Your task to perform on an android device: turn notification dots on Image 0: 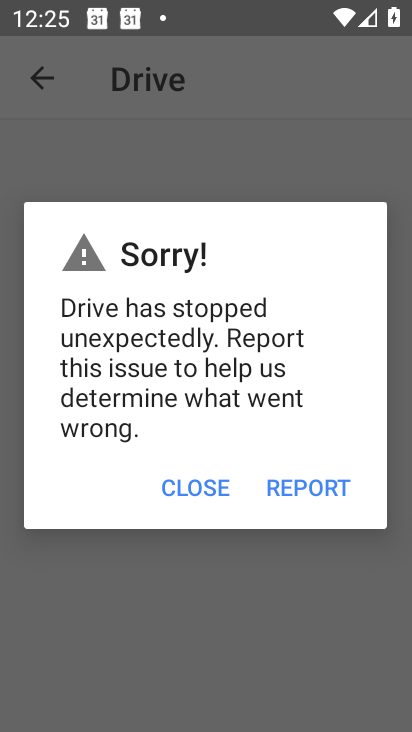
Step 0: press home button
Your task to perform on an android device: turn notification dots on Image 1: 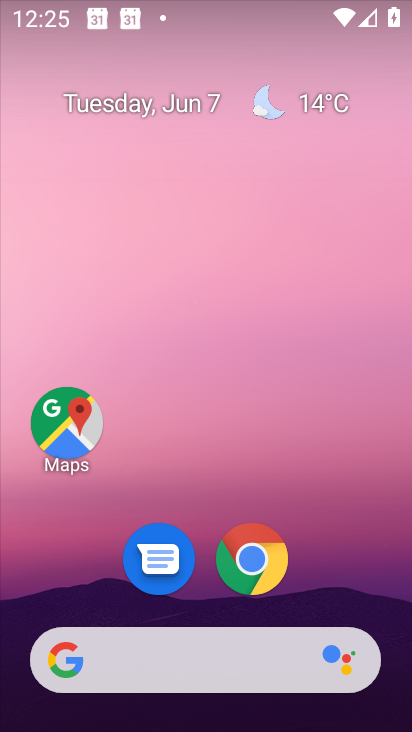
Step 1: drag from (307, 631) to (387, 179)
Your task to perform on an android device: turn notification dots on Image 2: 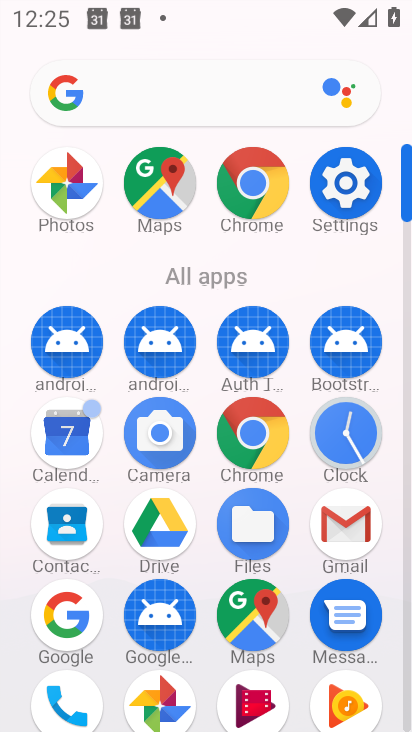
Step 2: drag from (128, 664) to (210, 288)
Your task to perform on an android device: turn notification dots on Image 3: 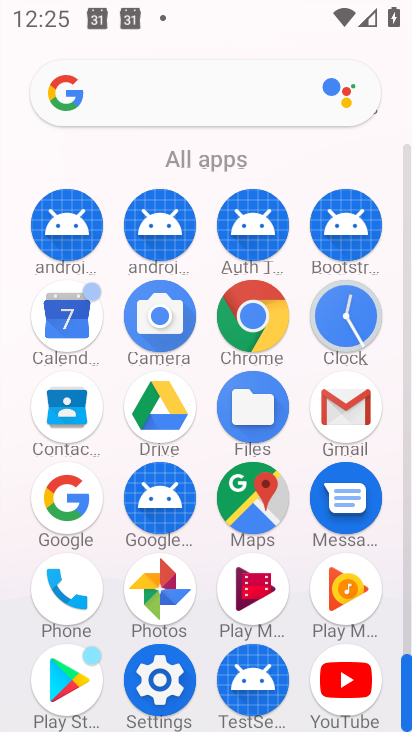
Step 3: click (148, 690)
Your task to perform on an android device: turn notification dots on Image 4: 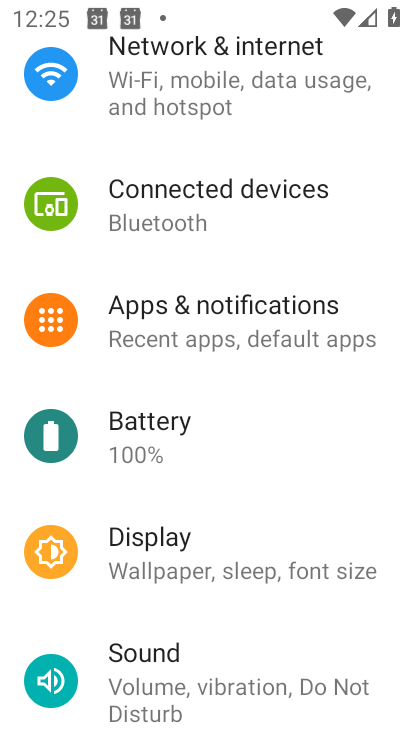
Step 4: click (285, 335)
Your task to perform on an android device: turn notification dots on Image 5: 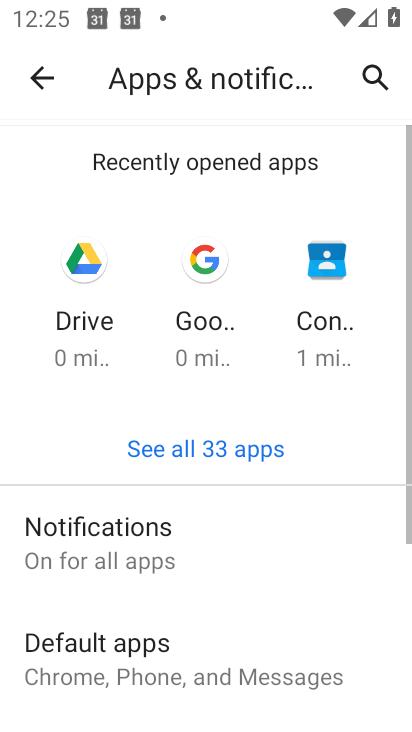
Step 5: drag from (167, 676) to (261, 386)
Your task to perform on an android device: turn notification dots on Image 6: 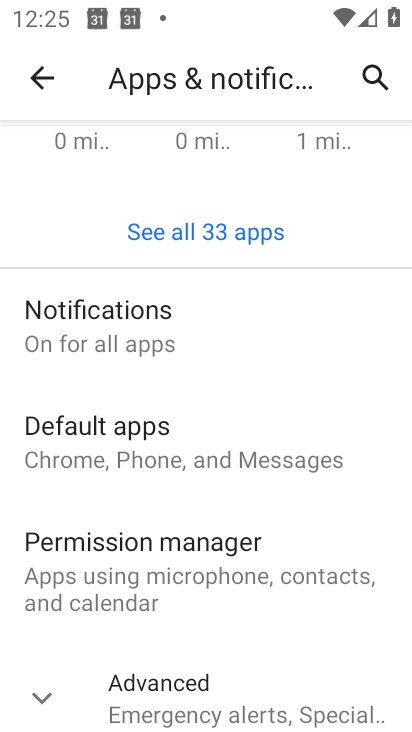
Step 6: click (170, 349)
Your task to perform on an android device: turn notification dots on Image 7: 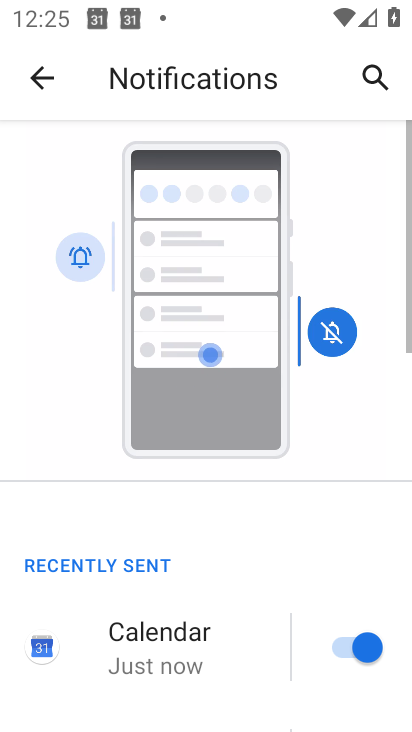
Step 7: drag from (220, 646) to (336, 184)
Your task to perform on an android device: turn notification dots on Image 8: 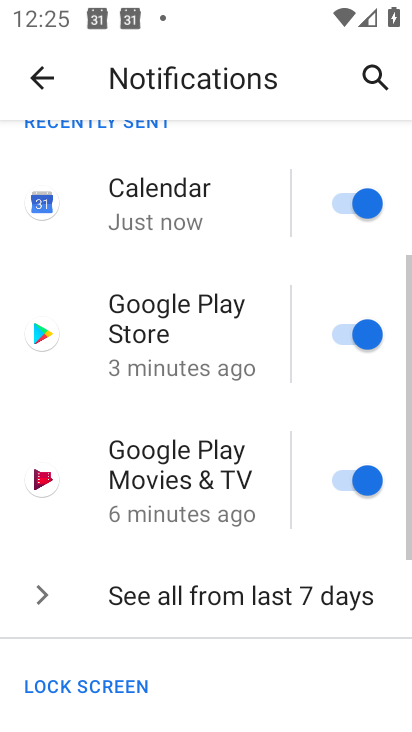
Step 8: drag from (161, 675) to (258, 229)
Your task to perform on an android device: turn notification dots on Image 9: 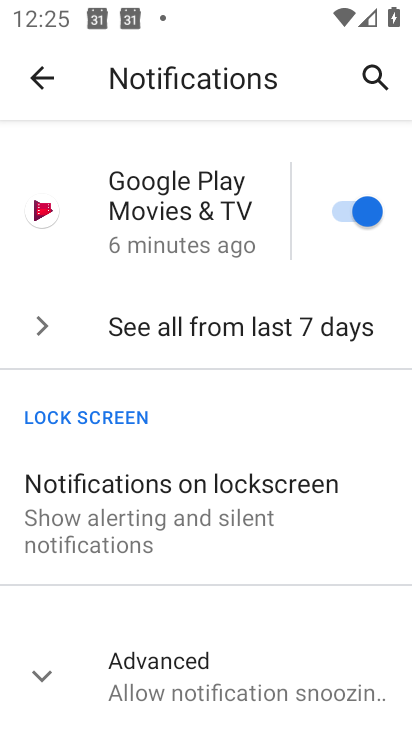
Step 9: click (171, 658)
Your task to perform on an android device: turn notification dots on Image 10: 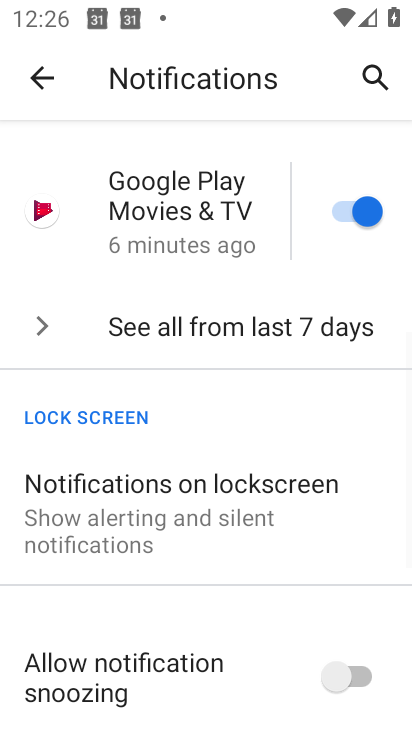
Step 10: task complete